Your task to perform on an android device: Check the news Image 0: 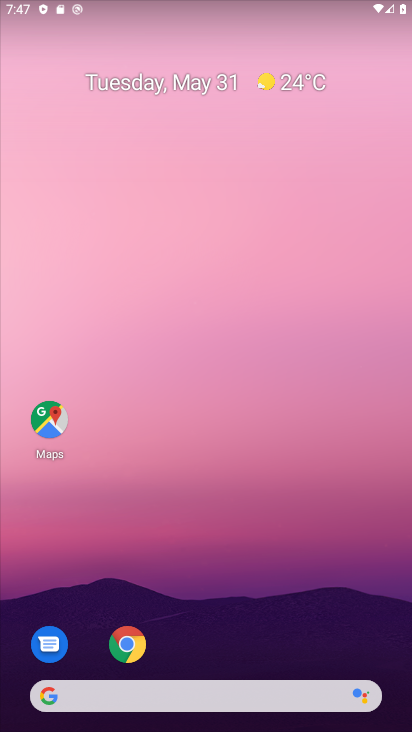
Step 0: drag from (301, 583) to (309, 257)
Your task to perform on an android device: Check the news Image 1: 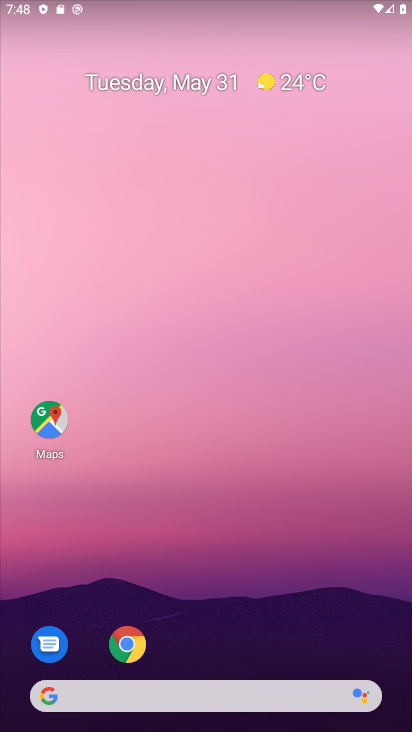
Step 1: drag from (293, 567) to (283, 120)
Your task to perform on an android device: Check the news Image 2: 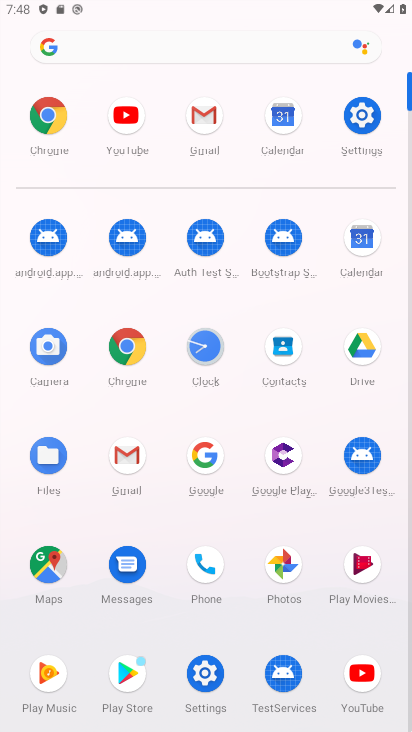
Step 2: click (45, 124)
Your task to perform on an android device: Check the news Image 3: 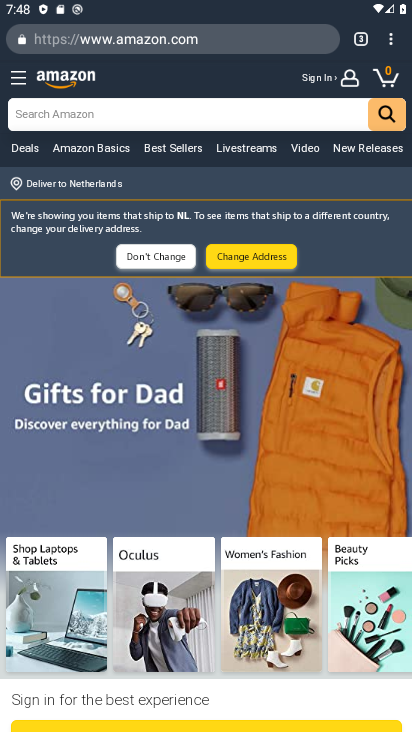
Step 3: click (211, 39)
Your task to perform on an android device: Check the news Image 4: 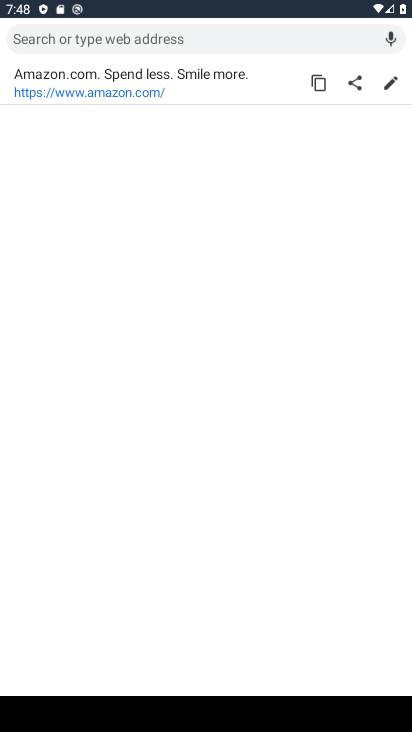
Step 4: type "check the news"
Your task to perform on an android device: Check the news Image 5: 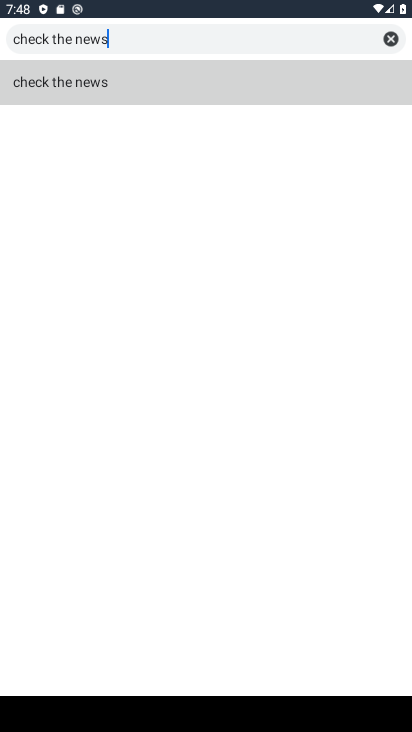
Step 5: click (55, 89)
Your task to perform on an android device: Check the news Image 6: 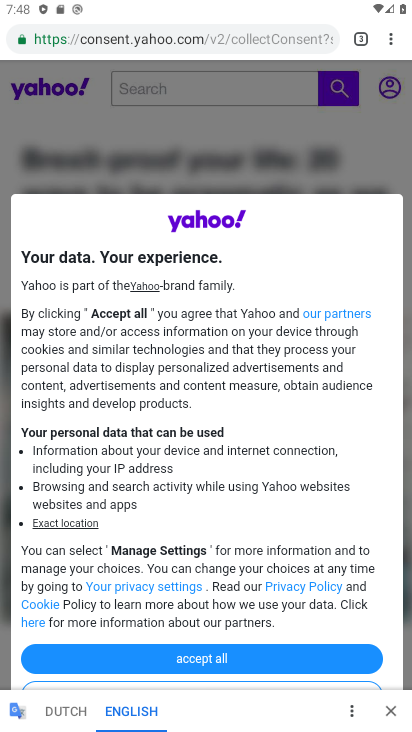
Step 6: task complete